Your task to perform on an android device: Check the weather Image 0: 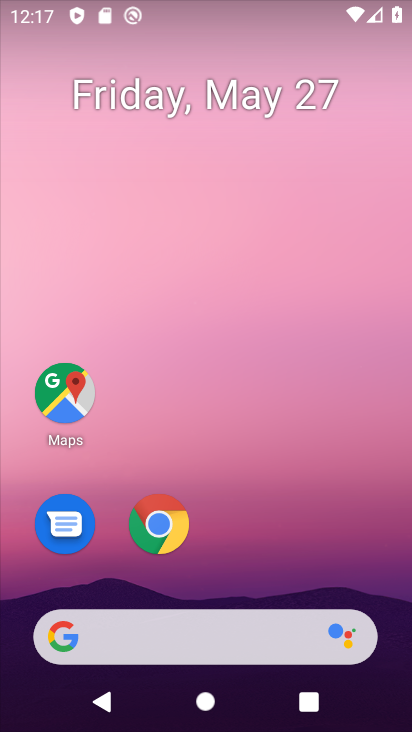
Step 0: click (251, 645)
Your task to perform on an android device: Check the weather Image 1: 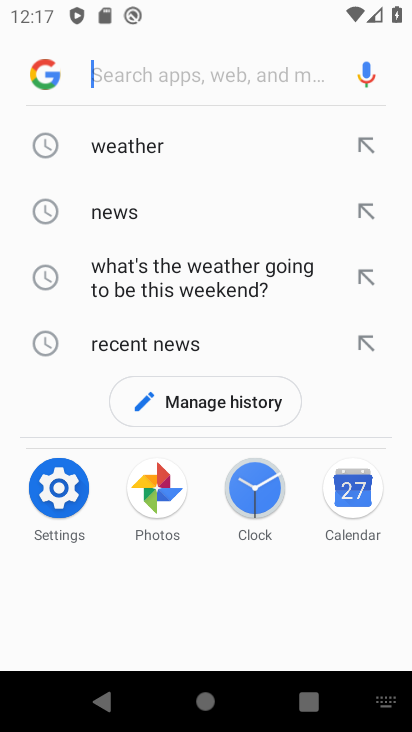
Step 1: click (140, 147)
Your task to perform on an android device: Check the weather Image 2: 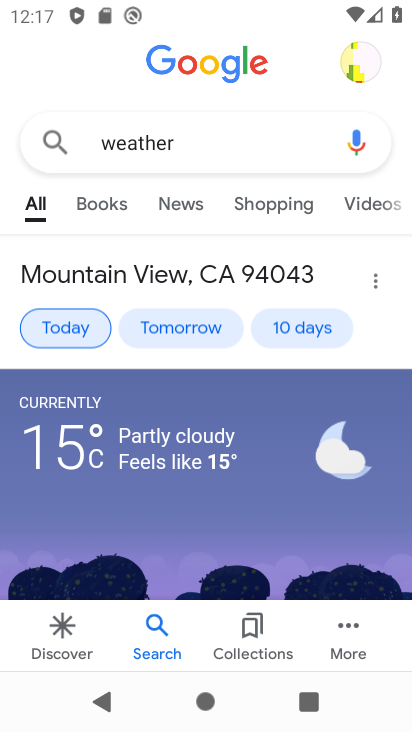
Step 2: click (88, 328)
Your task to perform on an android device: Check the weather Image 3: 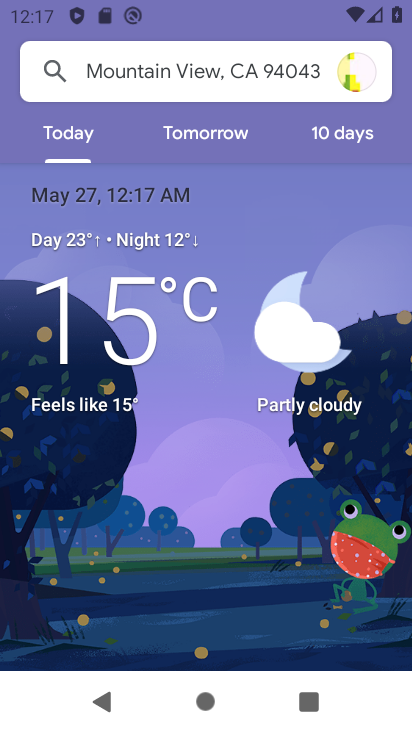
Step 3: task complete